Your task to perform on an android device: toggle notifications settings in the gmail app Image 0: 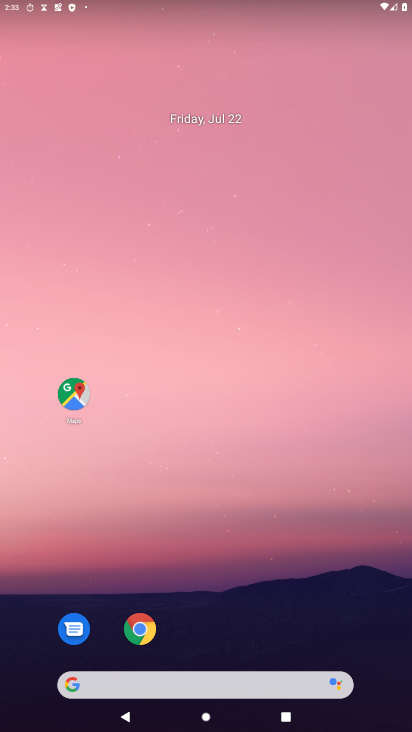
Step 0: drag from (266, 608) to (327, 29)
Your task to perform on an android device: toggle notifications settings in the gmail app Image 1: 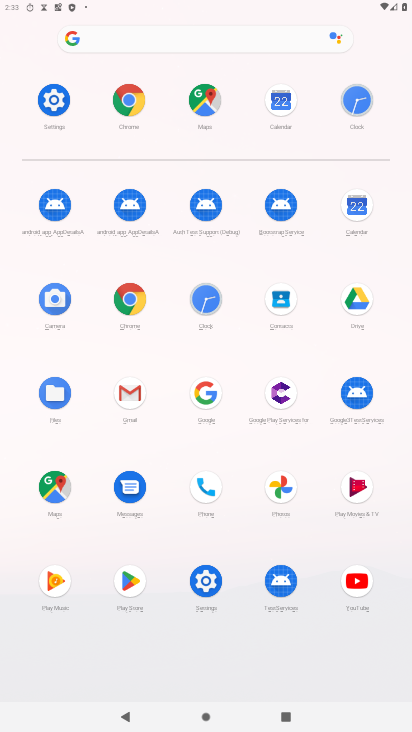
Step 1: click (135, 404)
Your task to perform on an android device: toggle notifications settings in the gmail app Image 2: 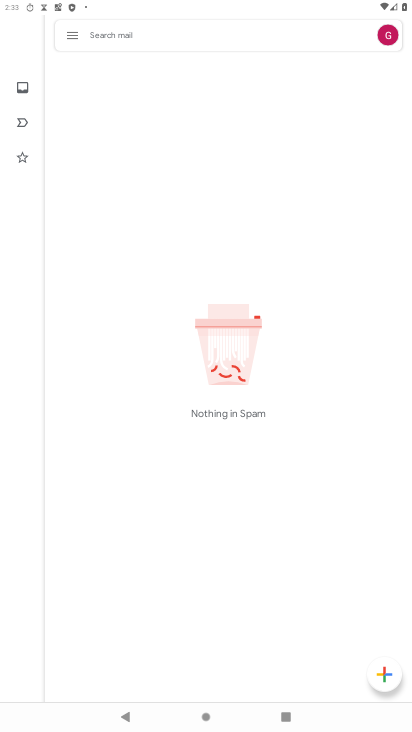
Step 2: click (74, 32)
Your task to perform on an android device: toggle notifications settings in the gmail app Image 3: 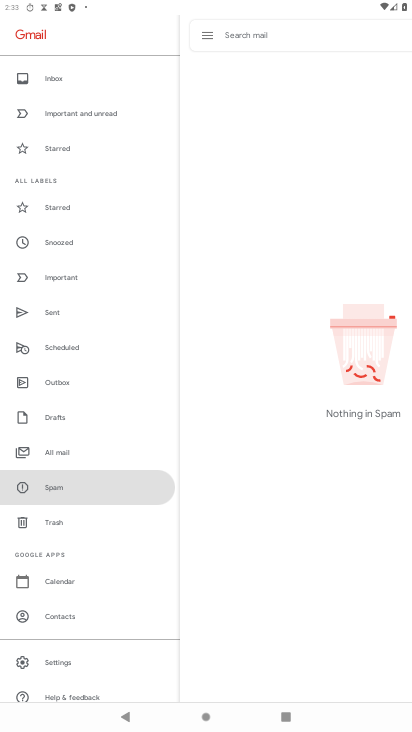
Step 3: click (38, 662)
Your task to perform on an android device: toggle notifications settings in the gmail app Image 4: 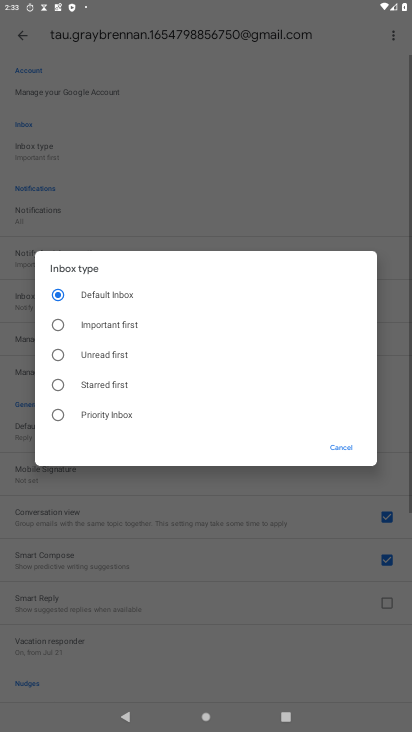
Step 4: click (209, 599)
Your task to perform on an android device: toggle notifications settings in the gmail app Image 5: 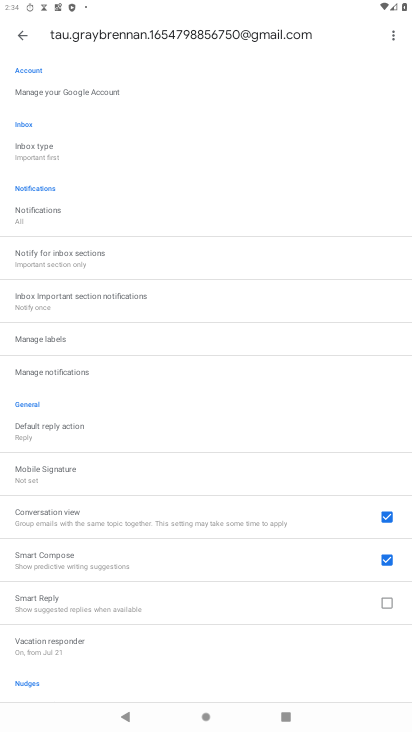
Step 5: click (69, 378)
Your task to perform on an android device: toggle notifications settings in the gmail app Image 6: 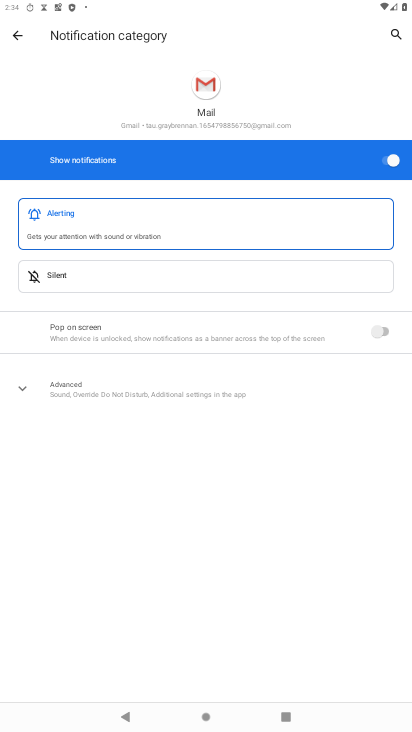
Step 6: click (385, 155)
Your task to perform on an android device: toggle notifications settings in the gmail app Image 7: 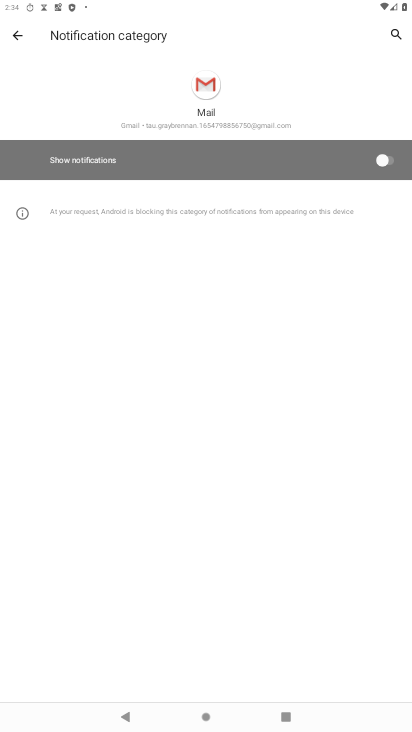
Step 7: task complete